Your task to perform on an android device: add a label to a message in the gmail app Image 0: 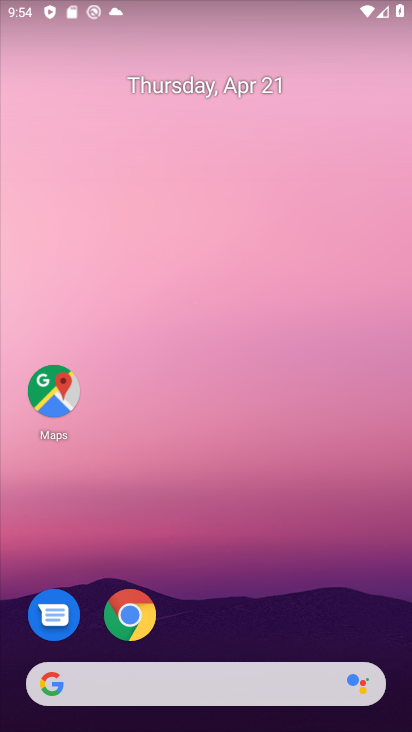
Step 0: drag from (233, 614) to (247, 83)
Your task to perform on an android device: add a label to a message in the gmail app Image 1: 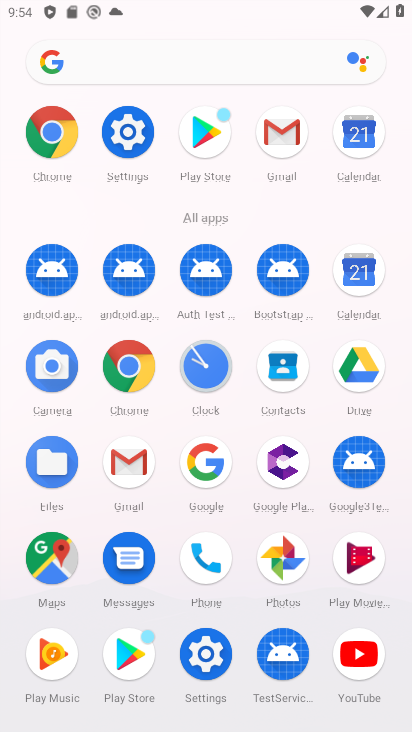
Step 1: click (125, 453)
Your task to perform on an android device: add a label to a message in the gmail app Image 2: 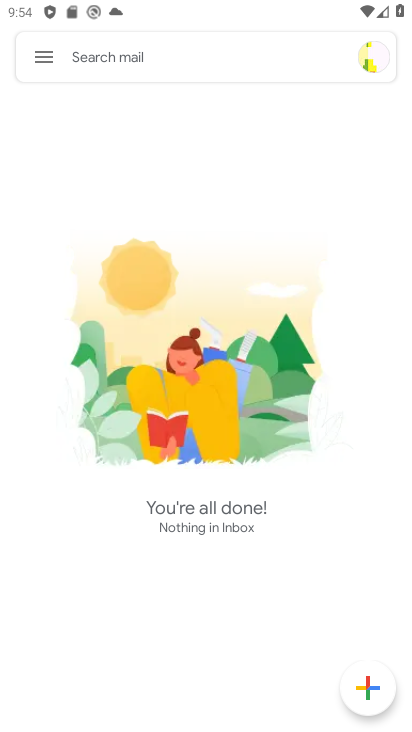
Step 2: click (41, 62)
Your task to perform on an android device: add a label to a message in the gmail app Image 3: 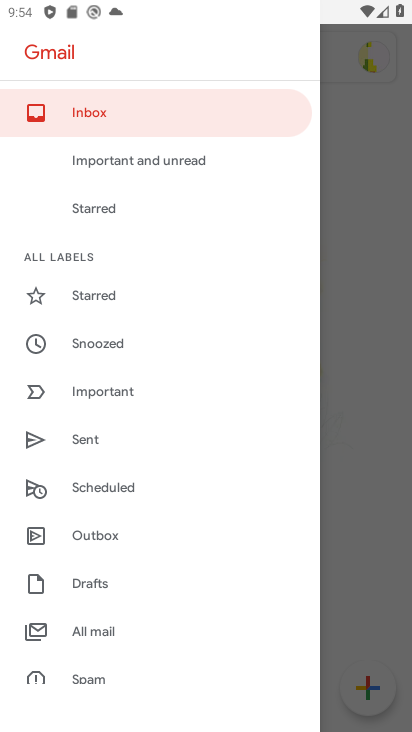
Step 3: click (129, 626)
Your task to perform on an android device: add a label to a message in the gmail app Image 4: 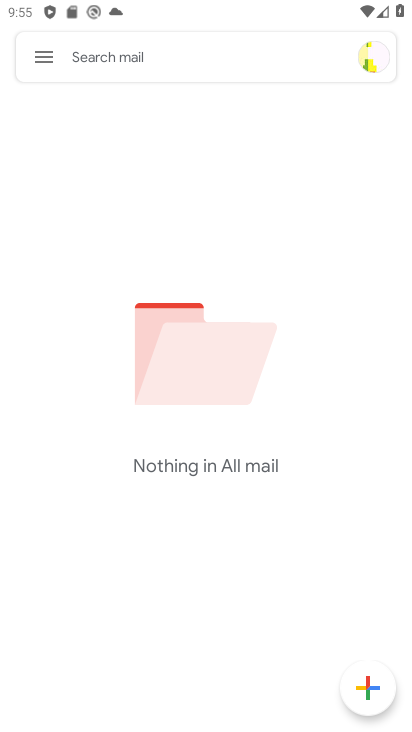
Step 4: click (46, 49)
Your task to perform on an android device: add a label to a message in the gmail app Image 5: 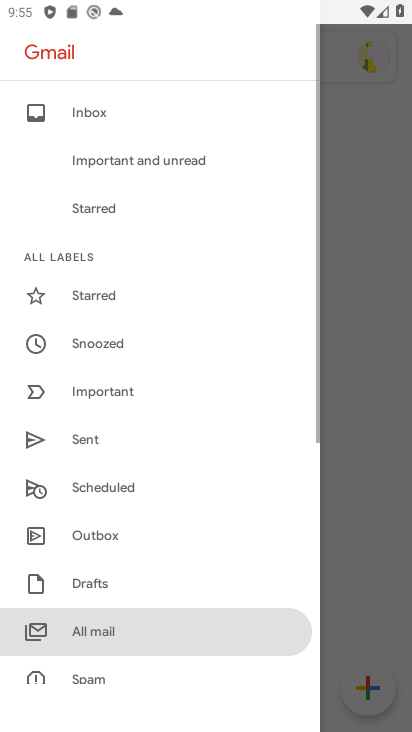
Step 5: task complete